Your task to perform on an android device: Open privacy settings Image 0: 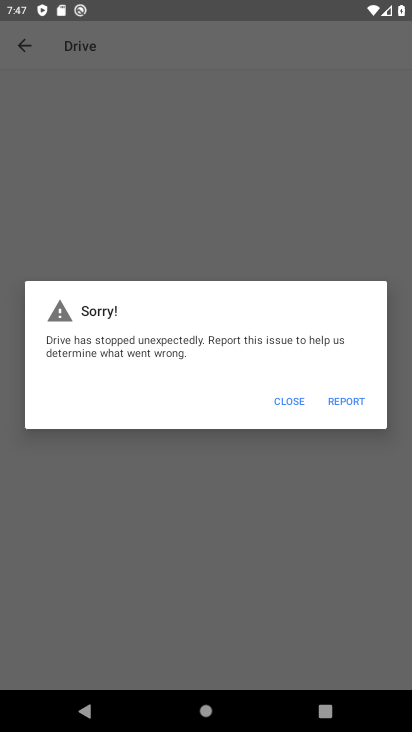
Step 0: press home button
Your task to perform on an android device: Open privacy settings Image 1: 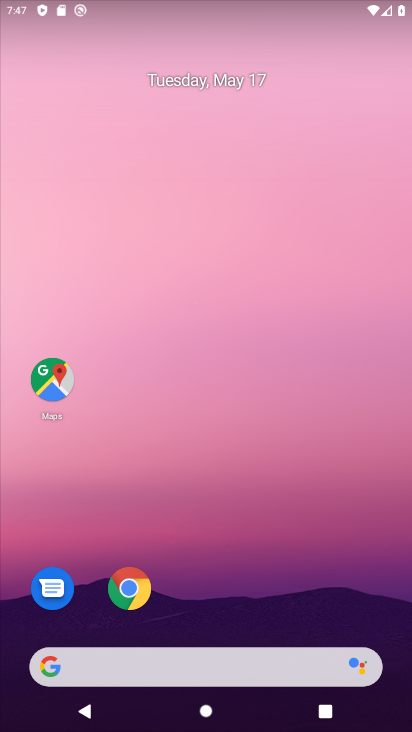
Step 1: drag from (398, 677) to (411, 463)
Your task to perform on an android device: Open privacy settings Image 2: 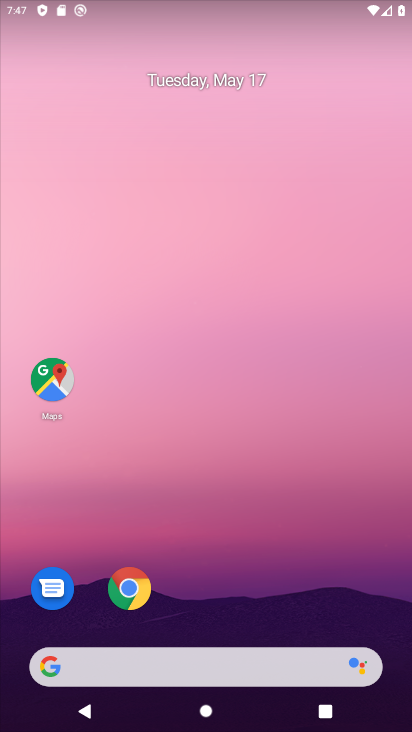
Step 2: drag from (395, 563) to (405, 258)
Your task to perform on an android device: Open privacy settings Image 3: 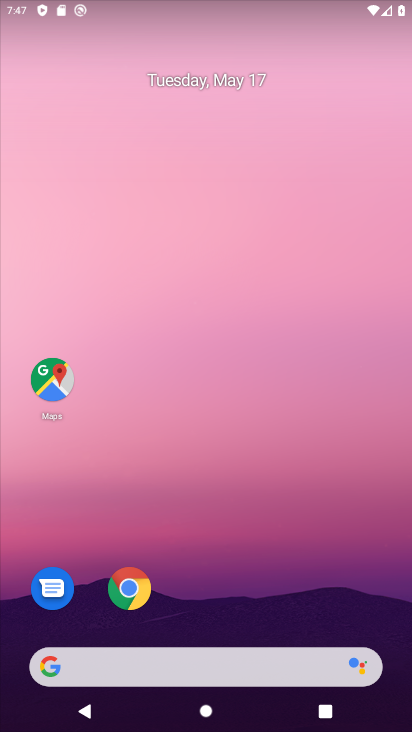
Step 3: drag from (406, 678) to (397, 265)
Your task to perform on an android device: Open privacy settings Image 4: 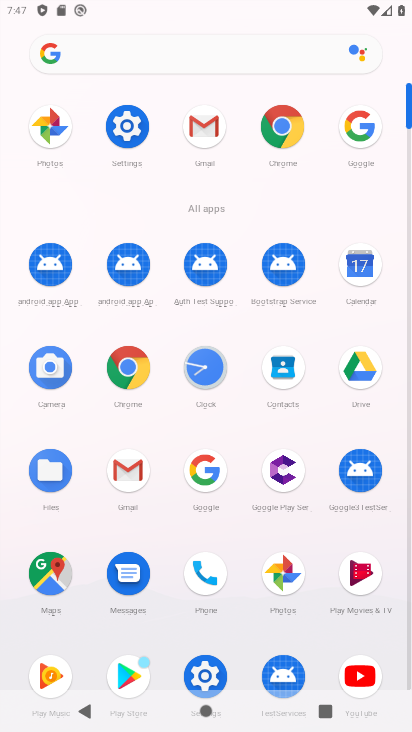
Step 4: click (211, 675)
Your task to perform on an android device: Open privacy settings Image 5: 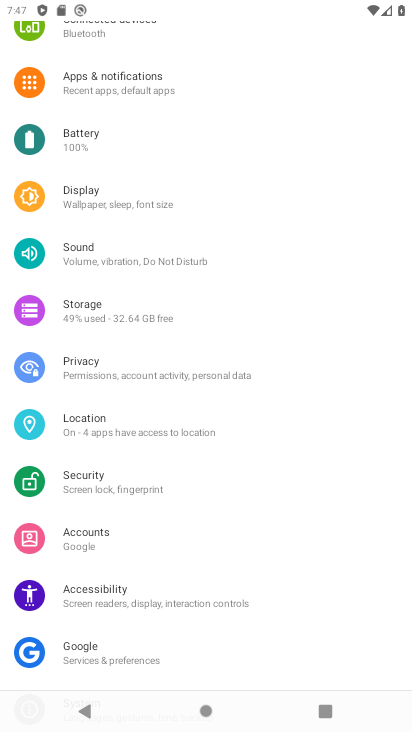
Step 5: press back button
Your task to perform on an android device: Open privacy settings Image 6: 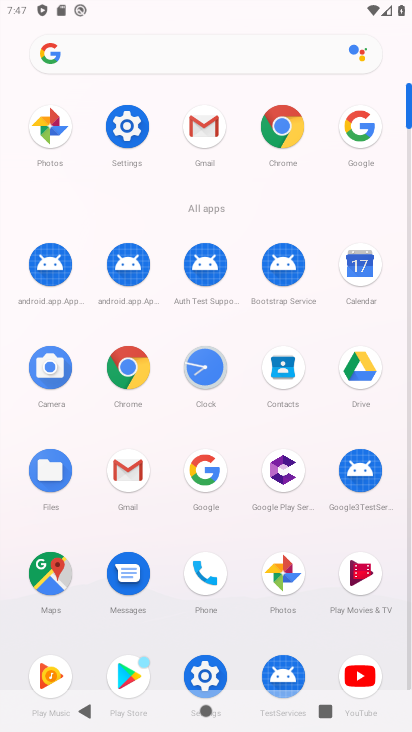
Step 6: click (272, 129)
Your task to perform on an android device: Open privacy settings Image 7: 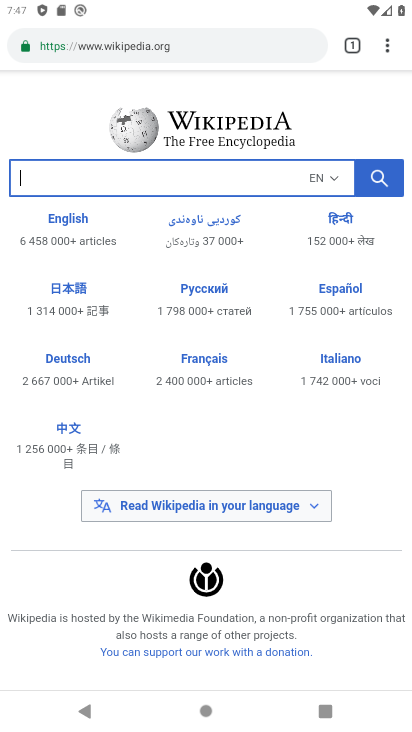
Step 7: click (384, 38)
Your task to perform on an android device: Open privacy settings Image 8: 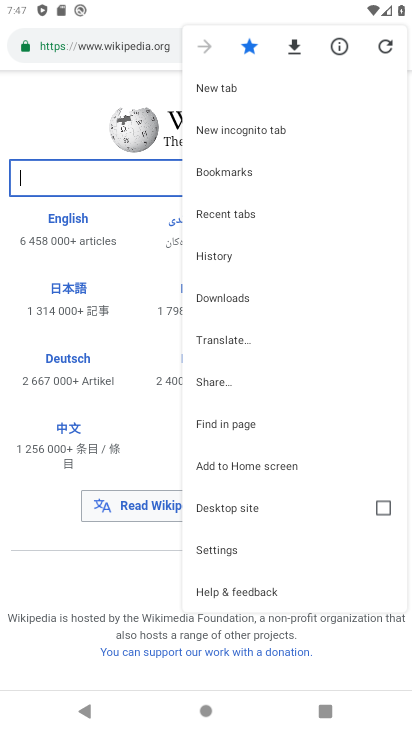
Step 8: drag from (300, 543) to (296, 185)
Your task to perform on an android device: Open privacy settings Image 9: 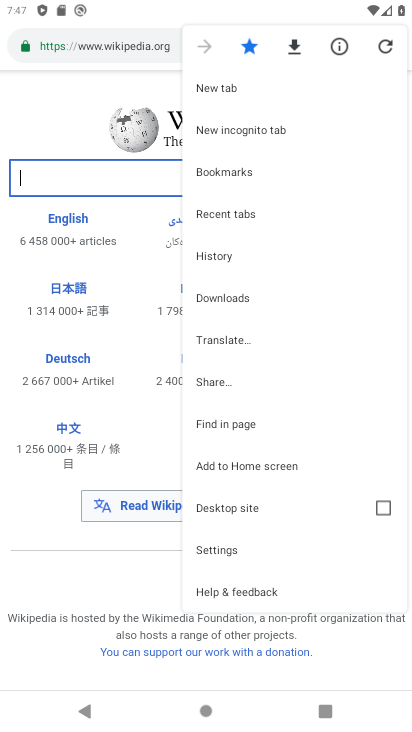
Step 9: click (214, 546)
Your task to perform on an android device: Open privacy settings Image 10: 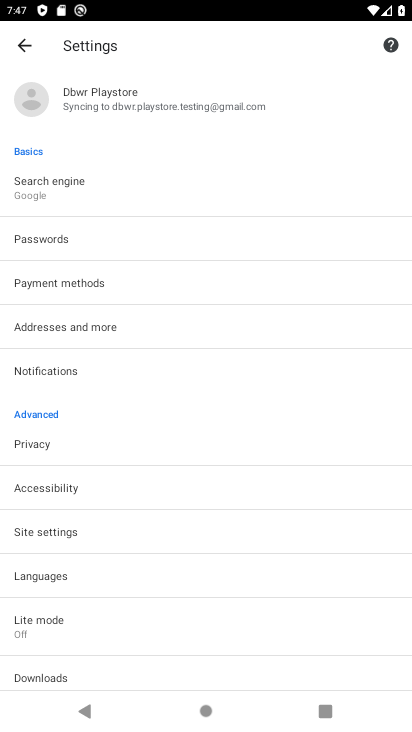
Step 10: click (33, 442)
Your task to perform on an android device: Open privacy settings Image 11: 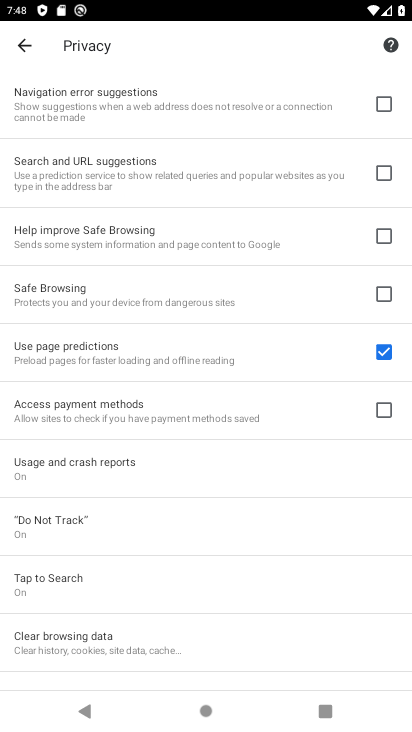
Step 11: task complete